Your task to perform on an android device: Open the phone app and click the voicemail tab. Image 0: 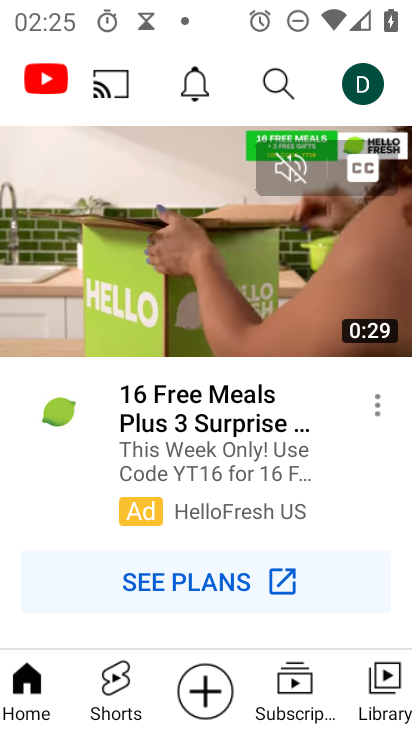
Step 0: press home button
Your task to perform on an android device: Open the phone app and click the voicemail tab. Image 1: 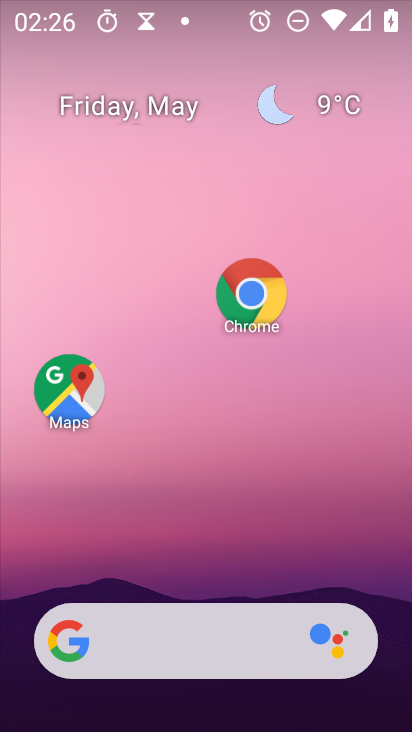
Step 1: drag from (248, 621) to (375, 183)
Your task to perform on an android device: Open the phone app and click the voicemail tab. Image 2: 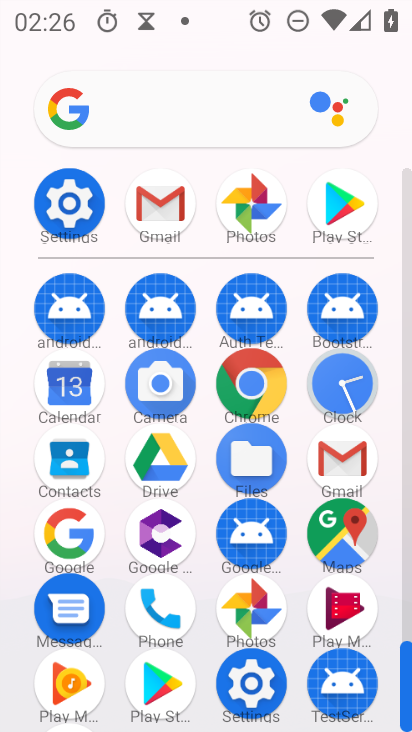
Step 2: click (168, 606)
Your task to perform on an android device: Open the phone app and click the voicemail tab. Image 3: 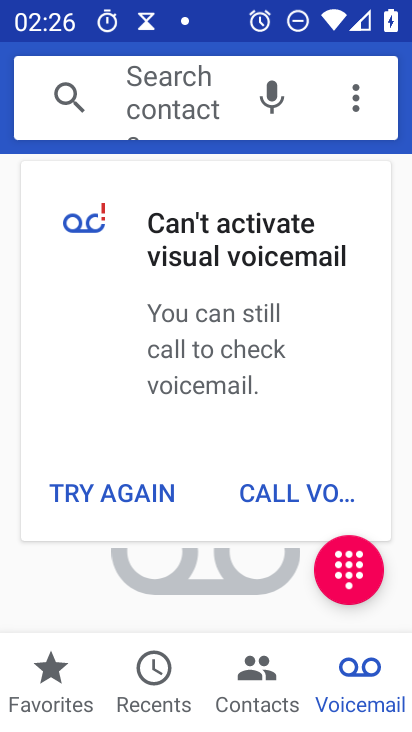
Step 3: task complete